Your task to perform on an android device: turn off smart reply in the gmail app Image 0: 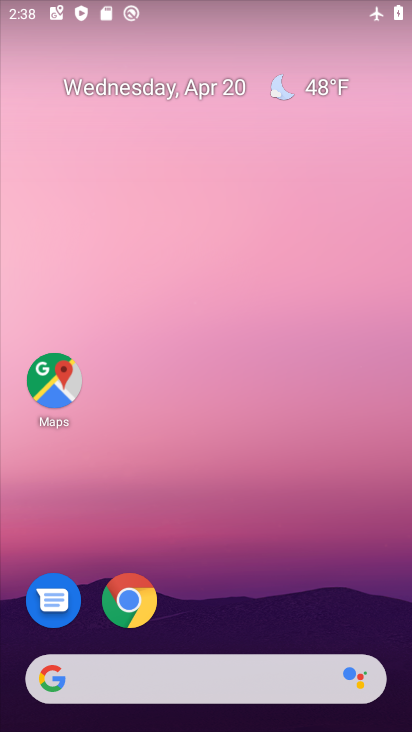
Step 0: drag from (333, 367) to (404, 35)
Your task to perform on an android device: turn off smart reply in the gmail app Image 1: 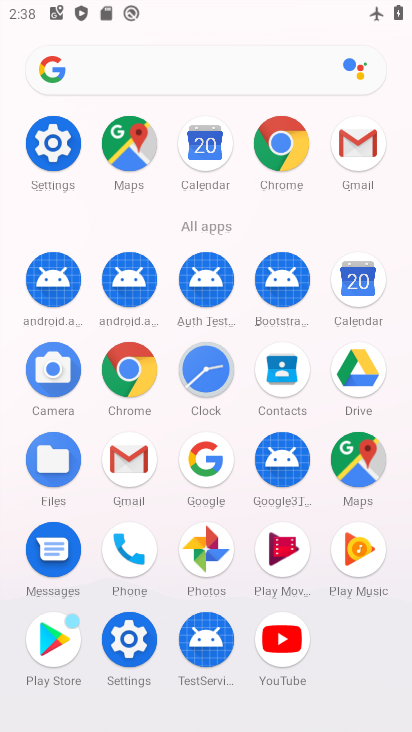
Step 1: click (364, 148)
Your task to perform on an android device: turn off smart reply in the gmail app Image 2: 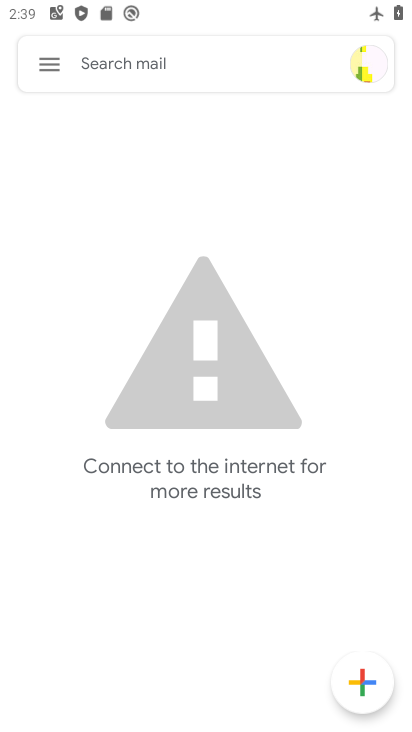
Step 2: click (49, 66)
Your task to perform on an android device: turn off smart reply in the gmail app Image 3: 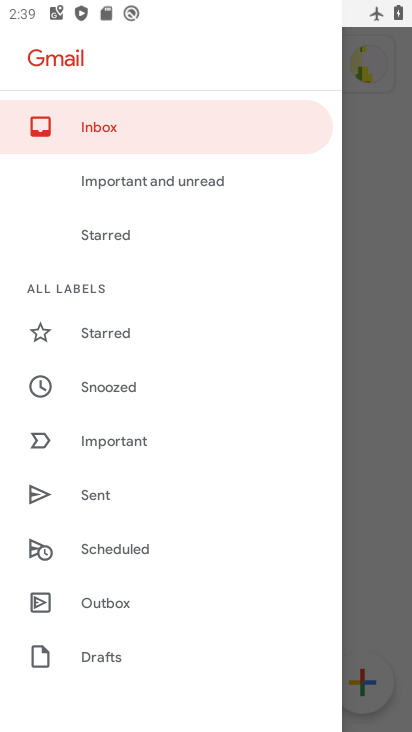
Step 3: drag from (181, 579) to (244, 236)
Your task to perform on an android device: turn off smart reply in the gmail app Image 4: 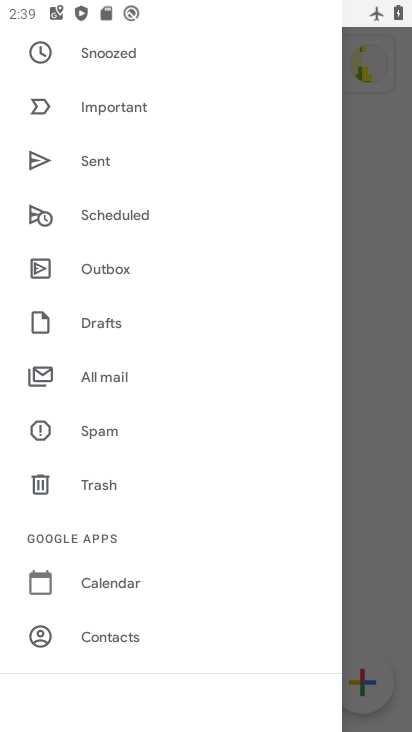
Step 4: drag from (124, 603) to (161, 209)
Your task to perform on an android device: turn off smart reply in the gmail app Image 5: 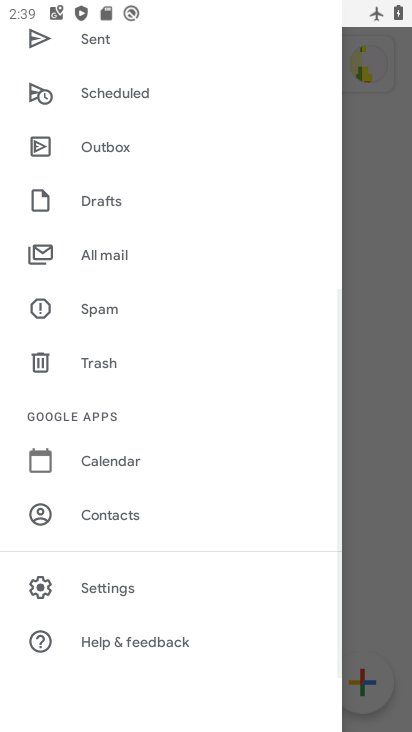
Step 5: click (92, 578)
Your task to perform on an android device: turn off smart reply in the gmail app Image 6: 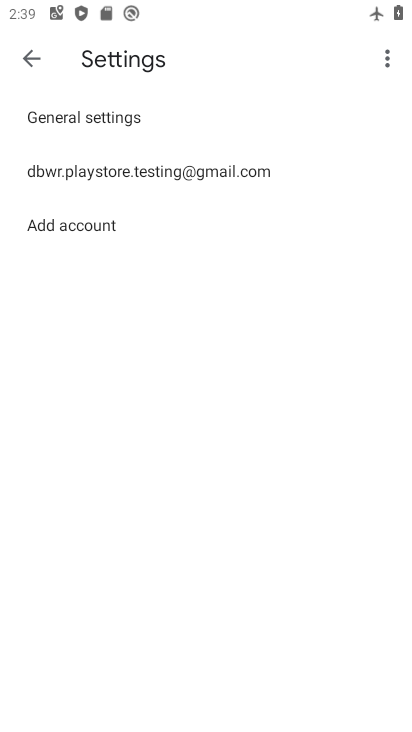
Step 6: click (44, 178)
Your task to perform on an android device: turn off smart reply in the gmail app Image 7: 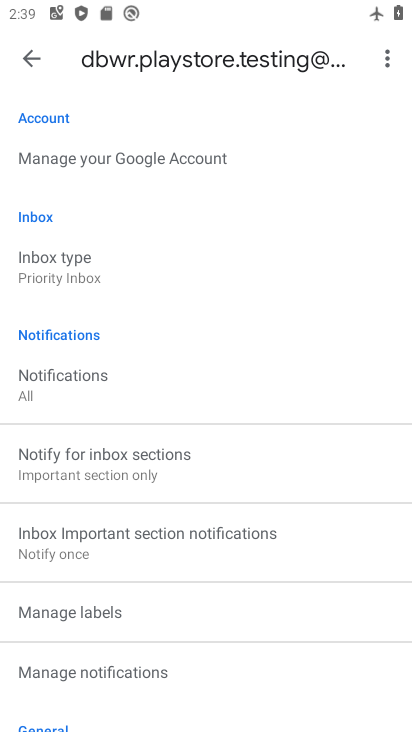
Step 7: drag from (102, 518) to (175, 185)
Your task to perform on an android device: turn off smart reply in the gmail app Image 8: 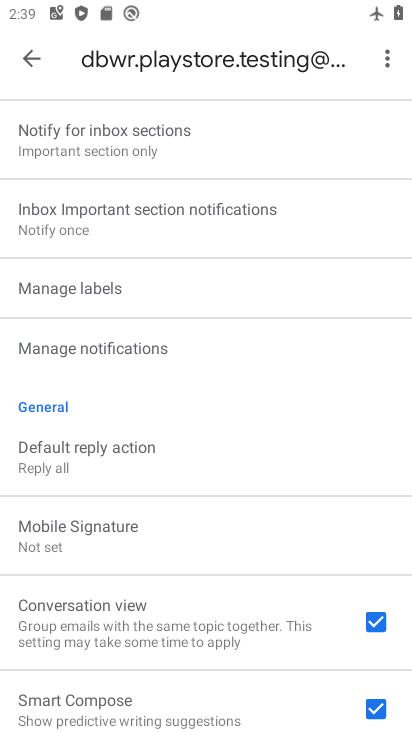
Step 8: drag from (124, 477) to (197, 195)
Your task to perform on an android device: turn off smart reply in the gmail app Image 9: 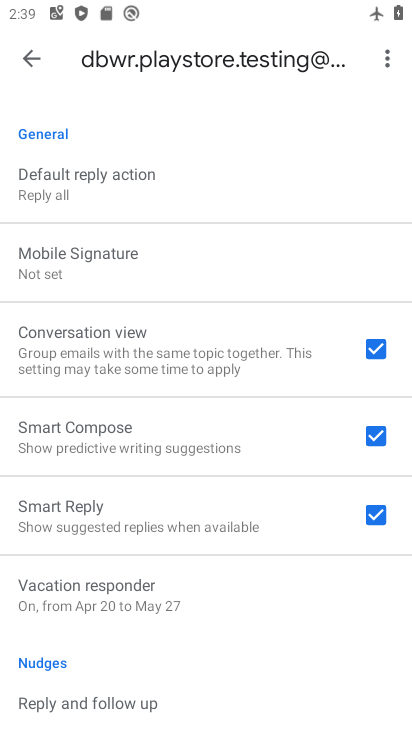
Step 9: drag from (140, 500) to (214, 114)
Your task to perform on an android device: turn off smart reply in the gmail app Image 10: 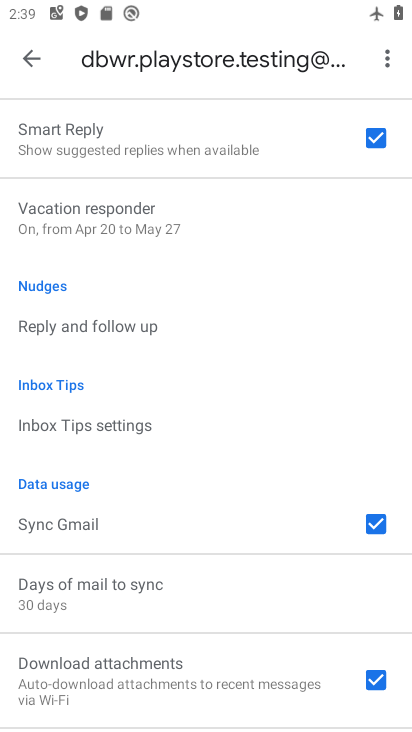
Step 10: click (110, 146)
Your task to perform on an android device: turn off smart reply in the gmail app Image 11: 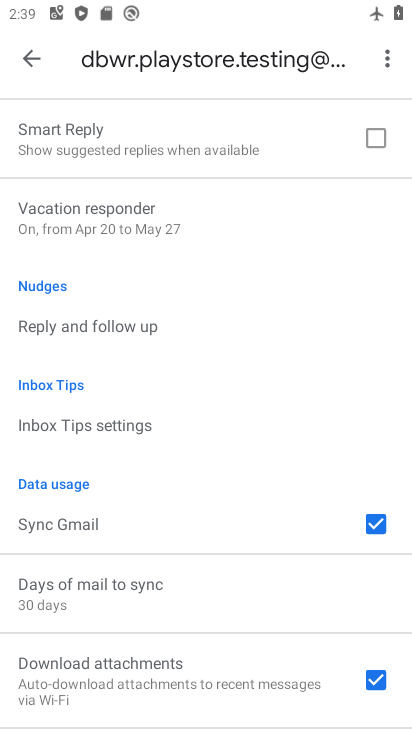
Step 11: task complete